Your task to perform on an android device: delete a single message in the gmail app Image 0: 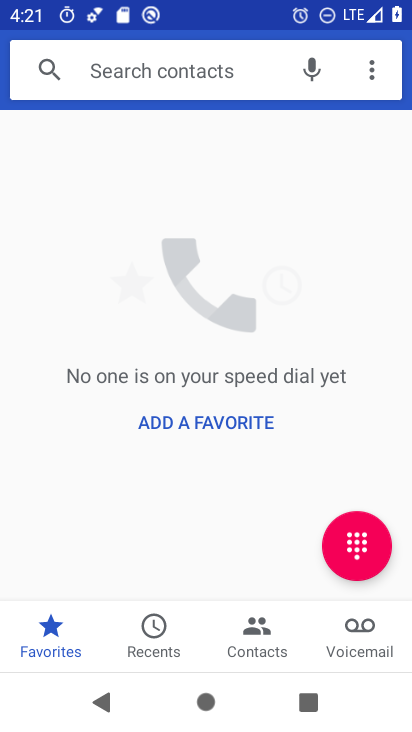
Step 0: press home button
Your task to perform on an android device: delete a single message in the gmail app Image 1: 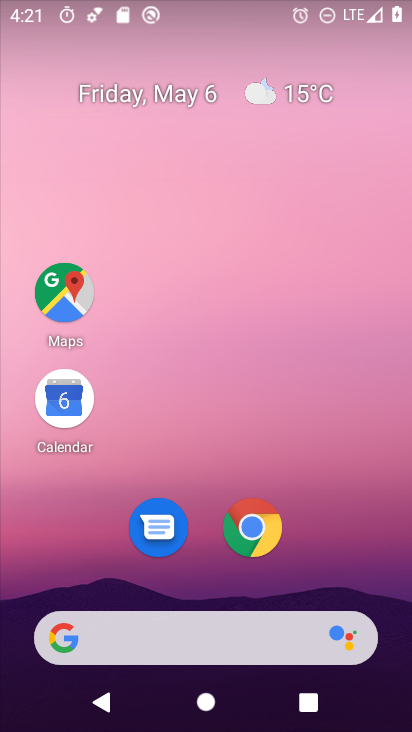
Step 1: drag from (335, 508) to (316, 66)
Your task to perform on an android device: delete a single message in the gmail app Image 2: 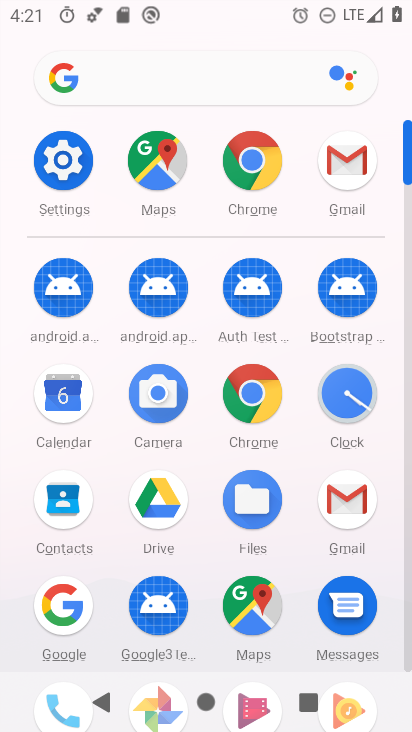
Step 2: click (336, 157)
Your task to perform on an android device: delete a single message in the gmail app Image 3: 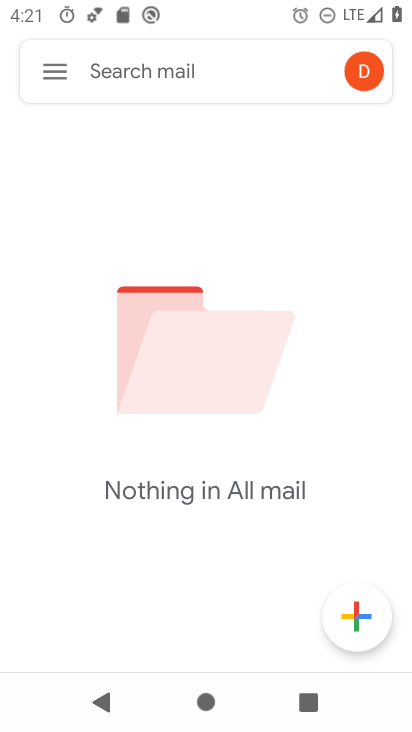
Step 3: click (28, 65)
Your task to perform on an android device: delete a single message in the gmail app Image 4: 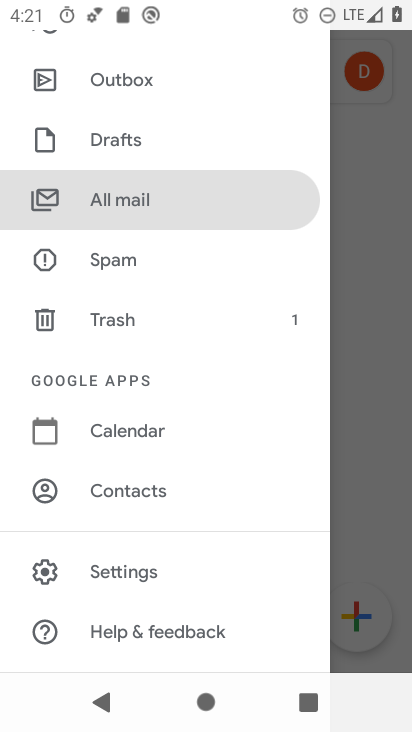
Step 4: drag from (192, 257) to (192, 518)
Your task to perform on an android device: delete a single message in the gmail app Image 5: 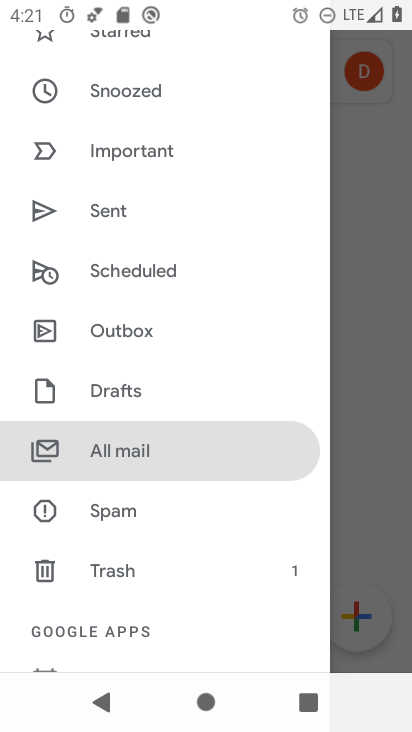
Step 5: click (109, 570)
Your task to perform on an android device: delete a single message in the gmail app Image 6: 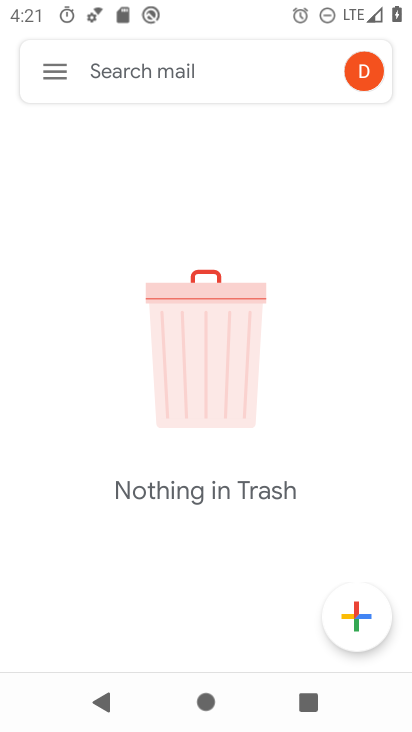
Step 6: click (33, 67)
Your task to perform on an android device: delete a single message in the gmail app Image 7: 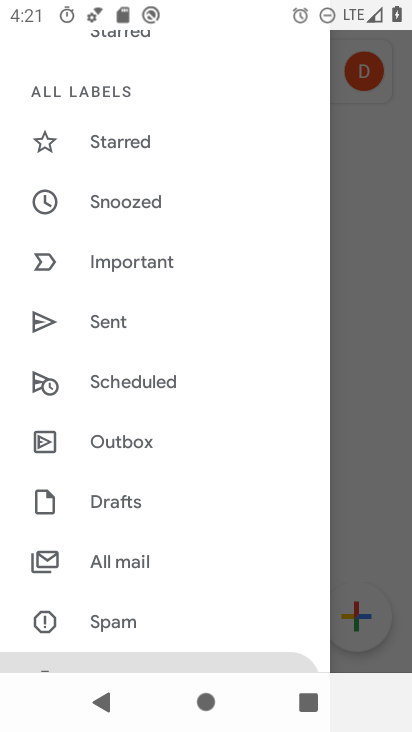
Step 7: click (128, 553)
Your task to perform on an android device: delete a single message in the gmail app Image 8: 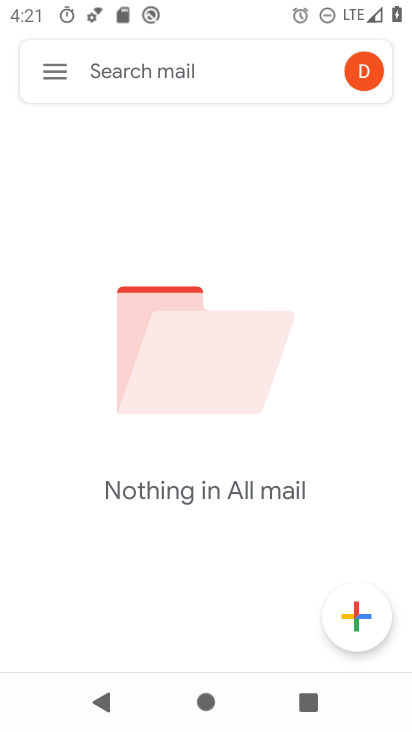
Step 8: task complete